Your task to perform on an android device: see sites visited before in the chrome app Image 0: 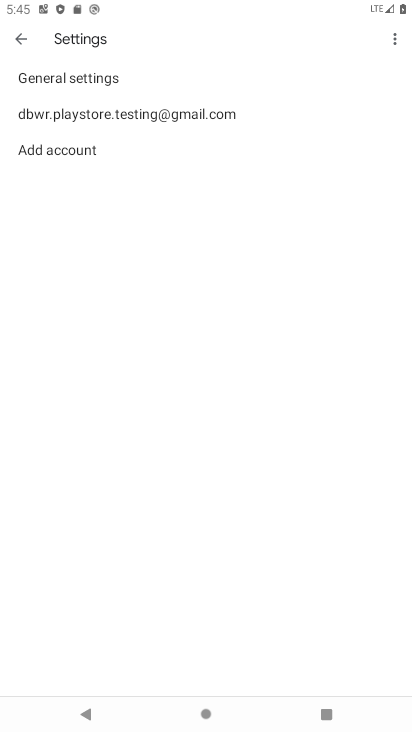
Step 0: press home button
Your task to perform on an android device: see sites visited before in the chrome app Image 1: 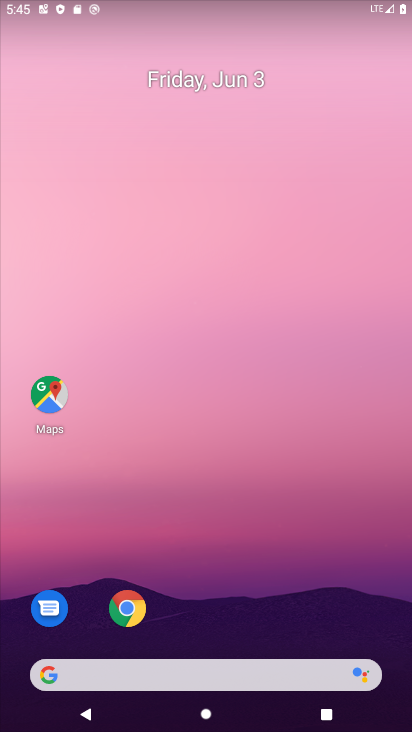
Step 1: click (120, 609)
Your task to perform on an android device: see sites visited before in the chrome app Image 2: 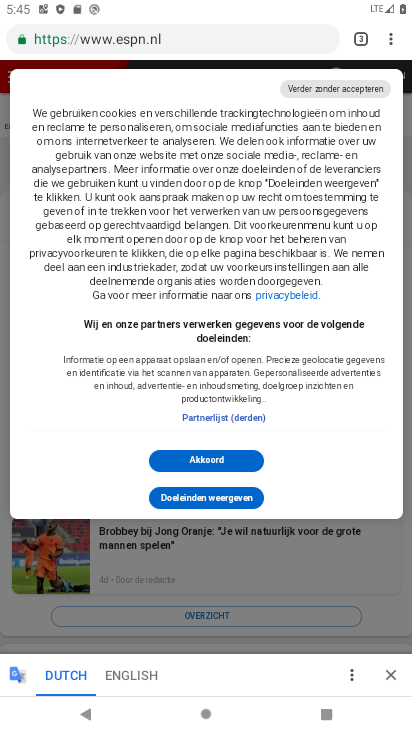
Step 2: click (395, 40)
Your task to perform on an android device: see sites visited before in the chrome app Image 3: 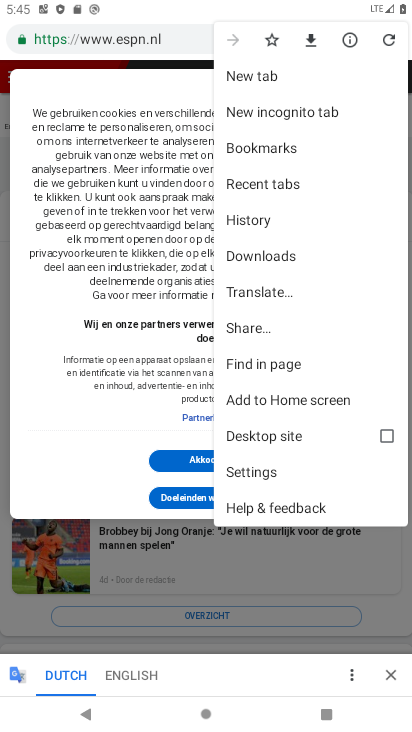
Step 3: click (292, 472)
Your task to perform on an android device: see sites visited before in the chrome app Image 4: 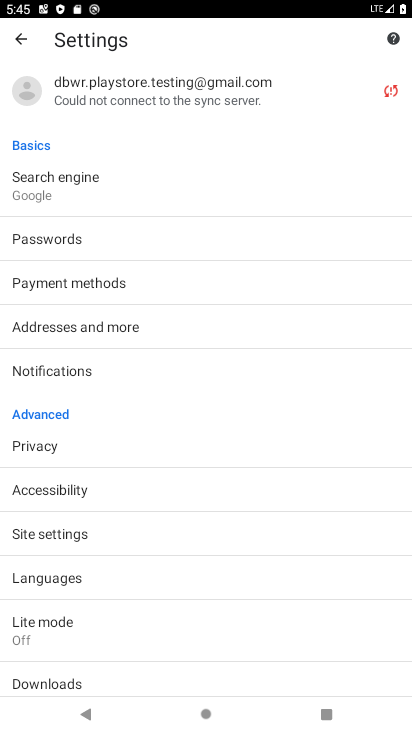
Step 4: click (89, 536)
Your task to perform on an android device: see sites visited before in the chrome app Image 5: 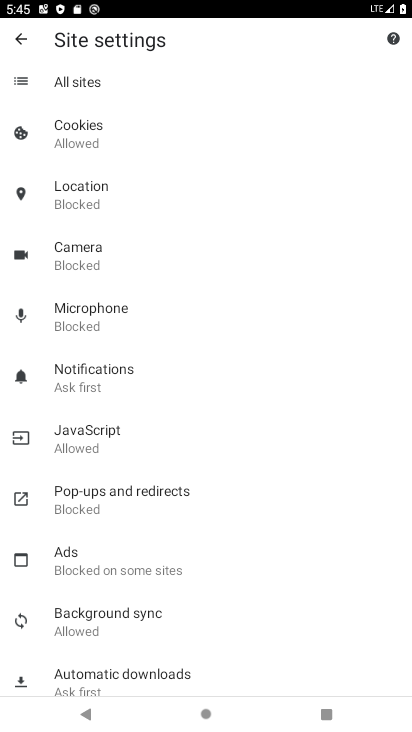
Step 5: task complete